Your task to perform on an android device: Open Google Image 0: 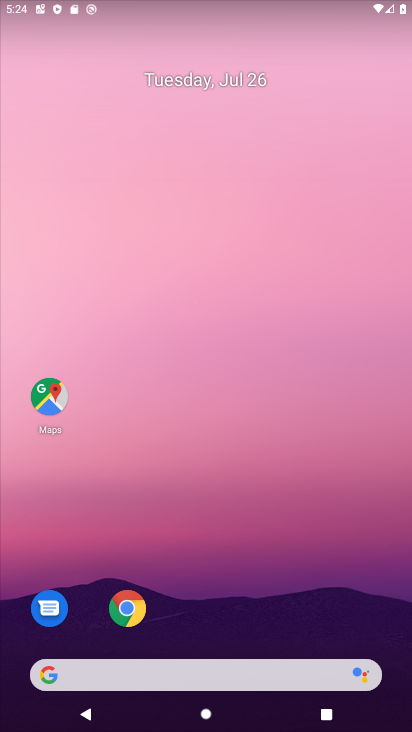
Step 0: click (51, 674)
Your task to perform on an android device: Open Google Image 1: 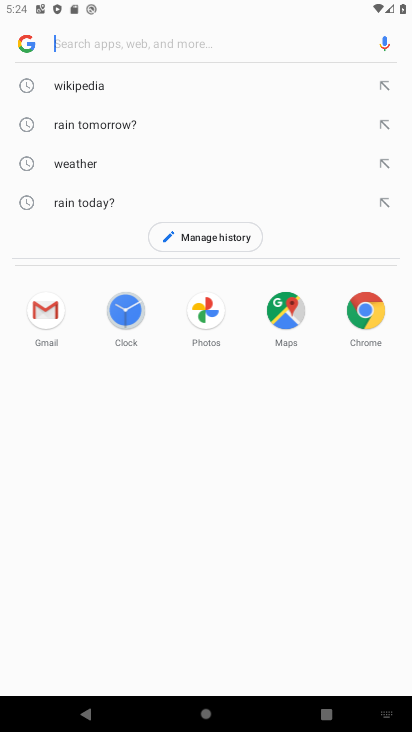
Step 1: task complete